Your task to perform on an android device: Do I have any events today? Image 0: 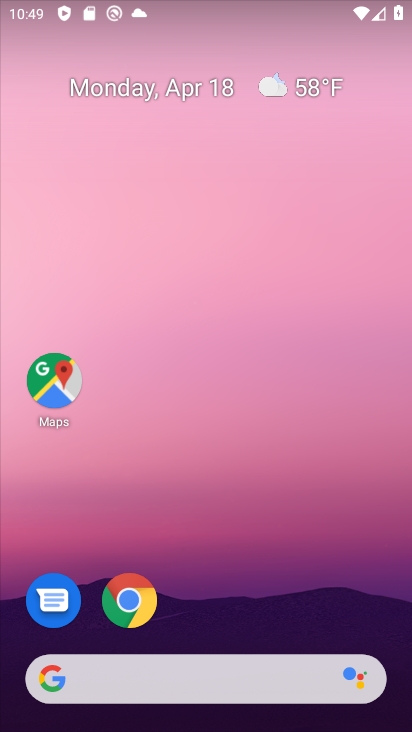
Step 0: drag from (223, 523) to (182, 20)
Your task to perform on an android device: Do I have any events today? Image 1: 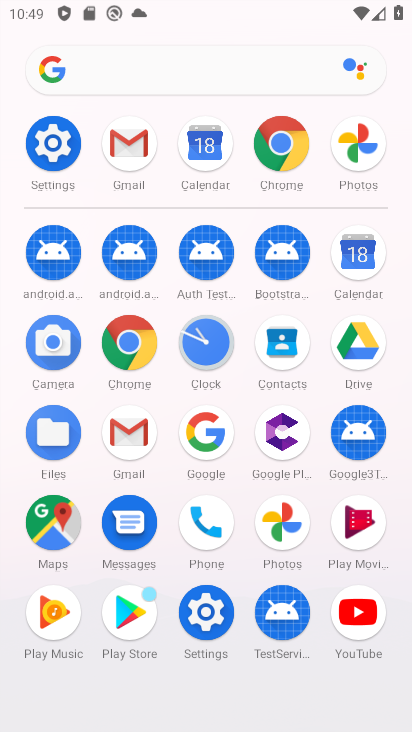
Step 1: click (346, 252)
Your task to perform on an android device: Do I have any events today? Image 2: 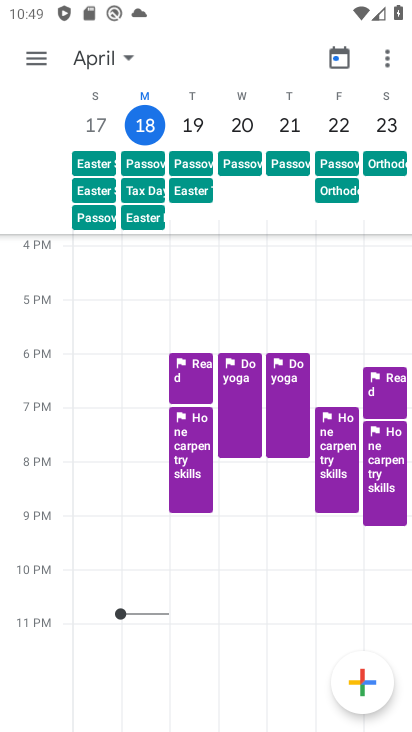
Step 2: click (144, 116)
Your task to perform on an android device: Do I have any events today? Image 3: 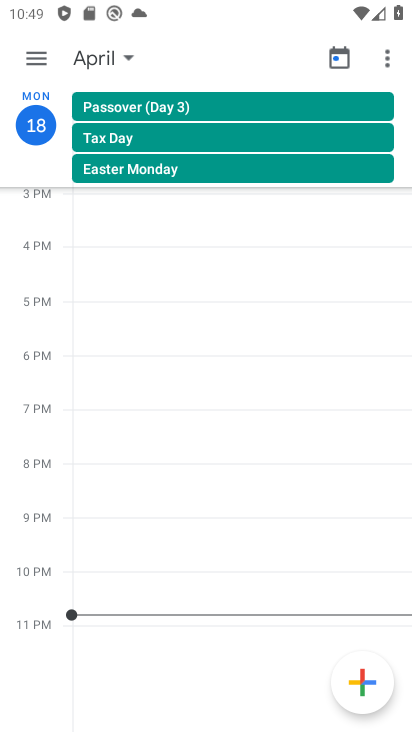
Step 3: task complete